Your task to perform on an android device: Search for "usb-b" on newegg, select the first entry, add it to the cart, then select checkout. Image 0: 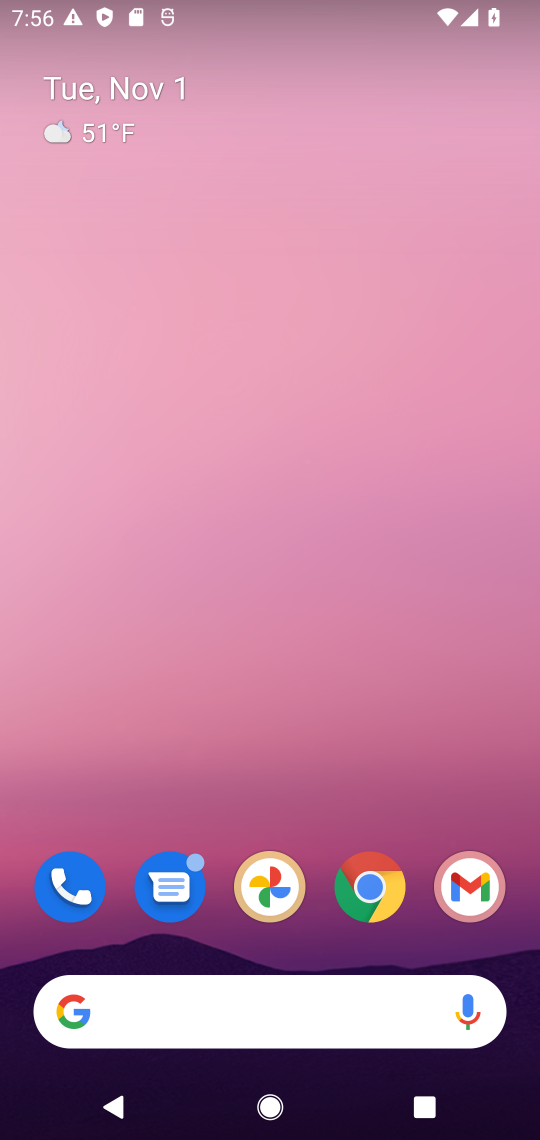
Step 0: drag from (188, 922) to (248, 333)
Your task to perform on an android device: Search for "usb-b" on newegg, select the first entry, add it to the cart, then select checkout. Image 1: 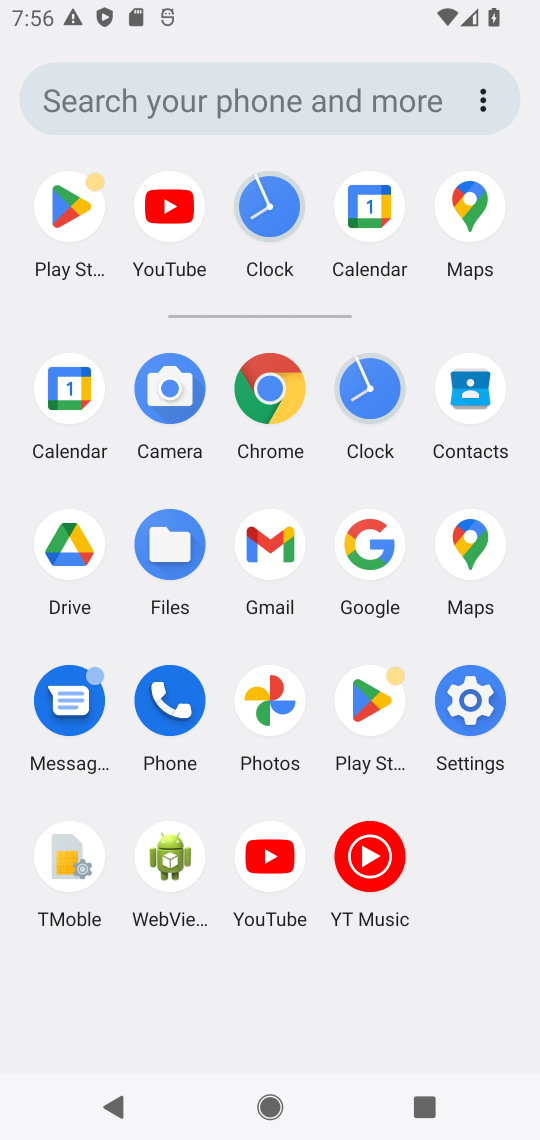
Step 1: click (371, 541)
Your task to perform on an android device: Search for "usb-b" on newegg, select the first entry, add it to the cart, then select checkout. Image 2: 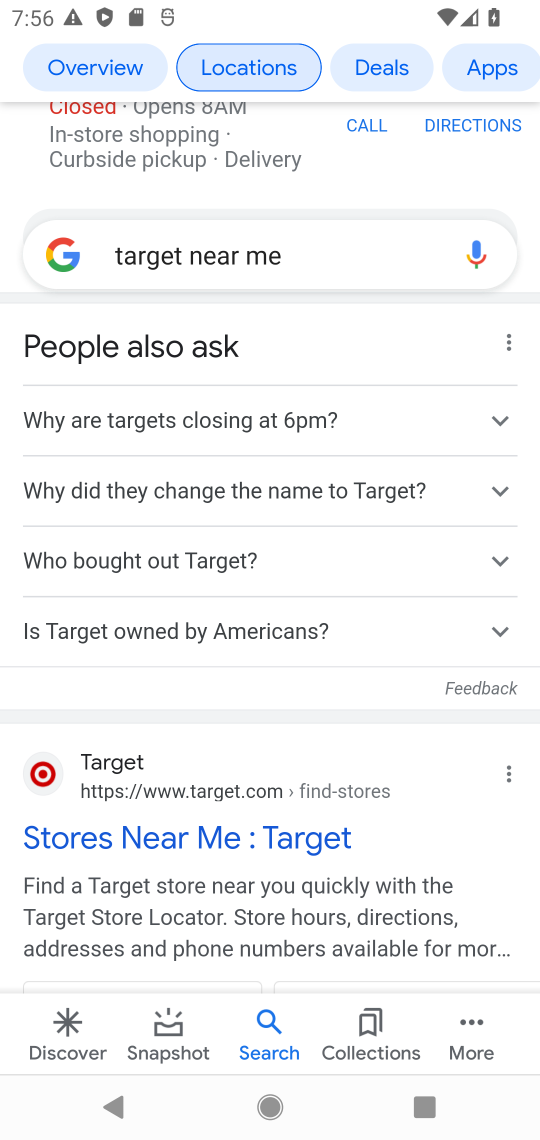
Step 2: click (291, 240)
Your task to perform on an android device: Search for "usb-b" on newegg, select the first entry, add it to the cart, then select checkout. Image 3: 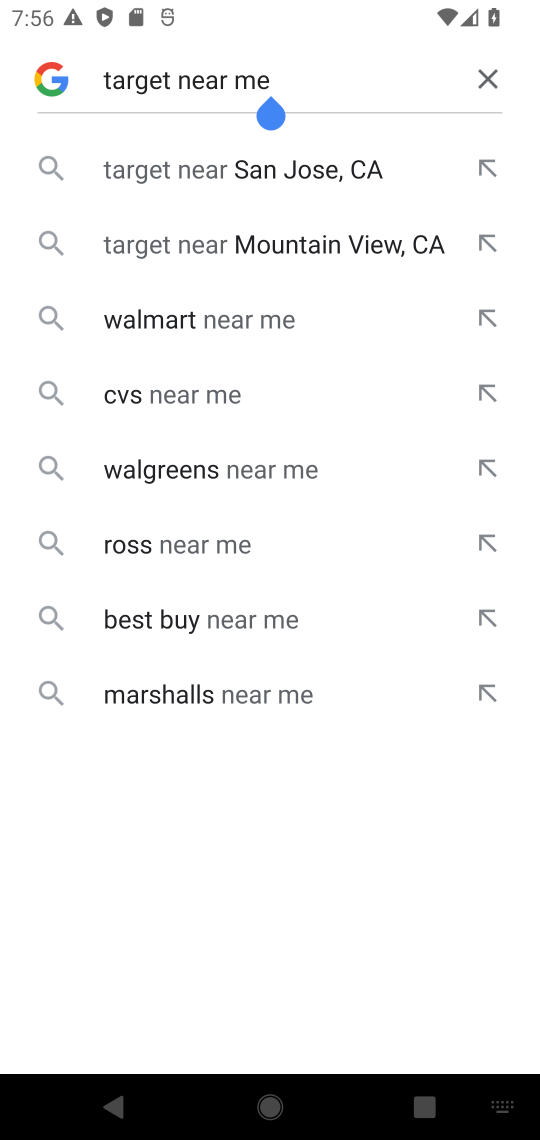
Step 3: click (477, 79)
Your task to perform on an android device: Search for "usb-b" on newegg, select the first entry, add it to the cart, then select checkout. Image 4: 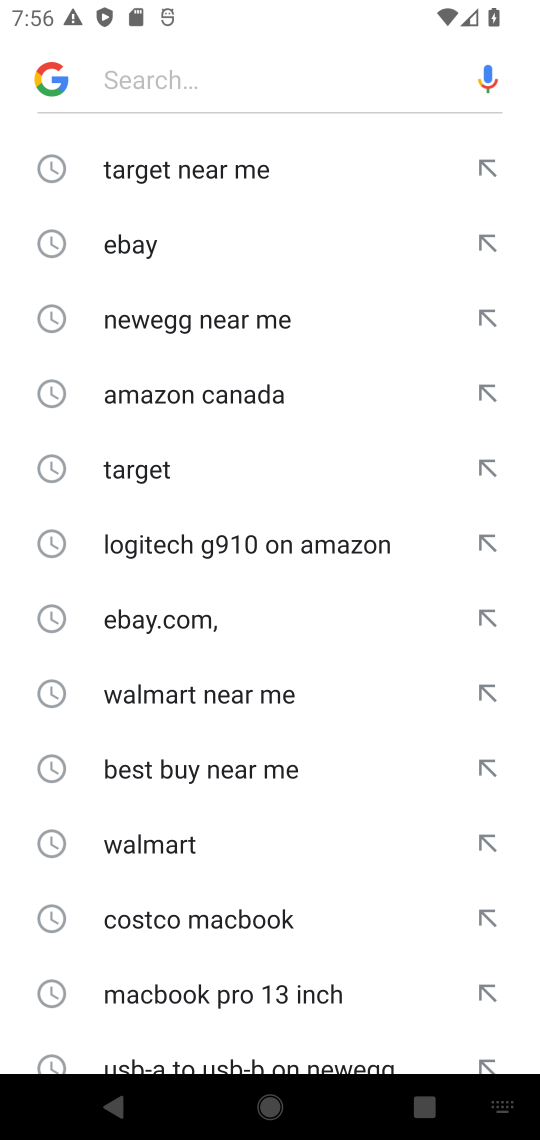
Step 4: click (298, 72)
Your task to perform on an android device: Search for "usb-b" on newegg, select the first entry, add it to the cart, then select checkout. Image 5: 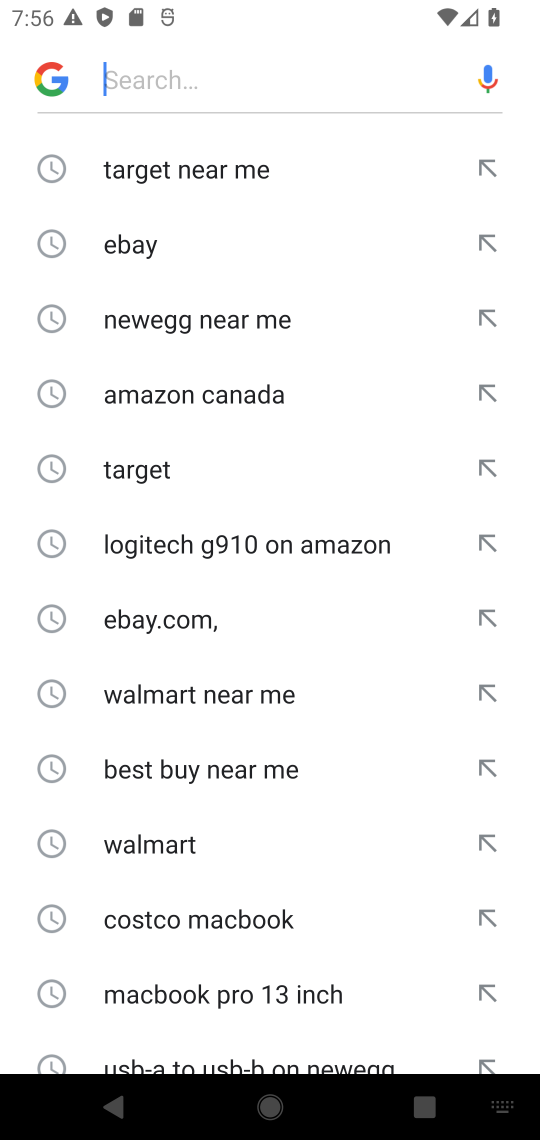
Step 5: type "newegg "
Your task to perform on an android device: Search for "usb-b" on newegg, select the first entry, add it to the cart, then select checkout. Image 6: 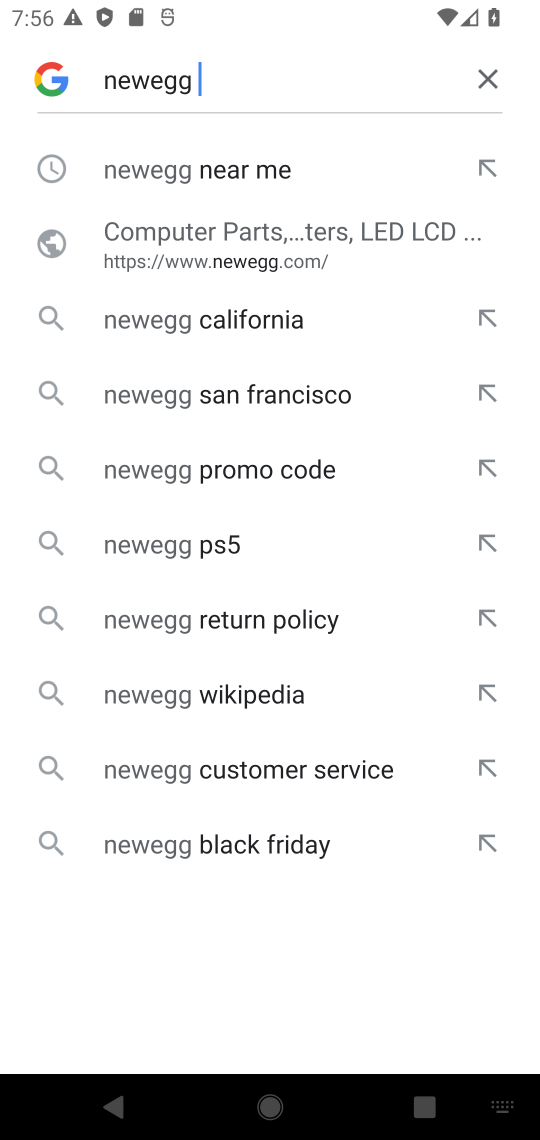
Step 6: click (194, 176)
Your task to perform on an android device: Search for "usb-b" on newegg, select the first entry, add it to the cart, then select checkout. Image 7: 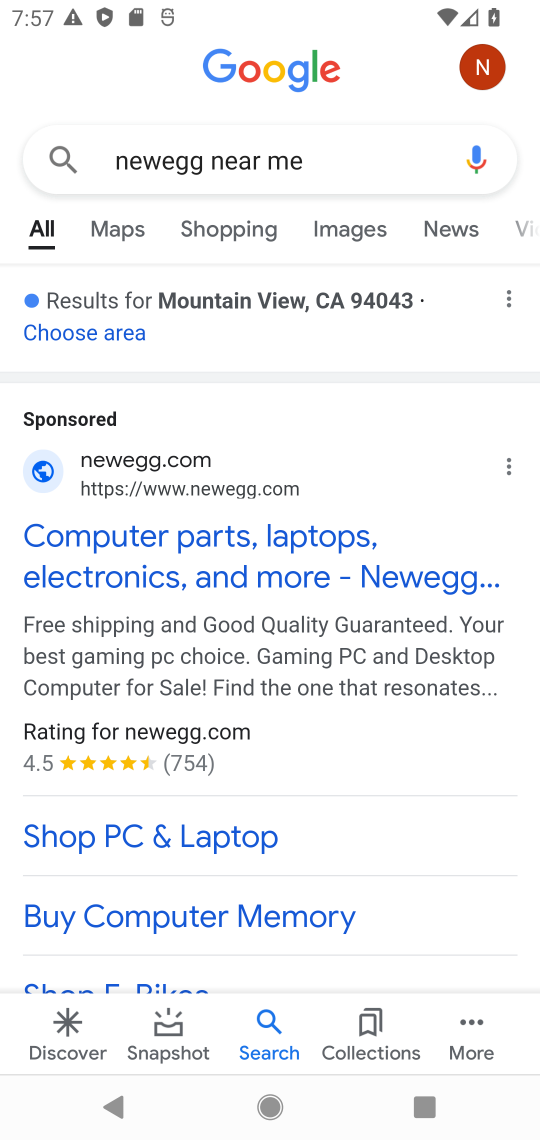
Step 7: drag from (181, 928) to (310, 413)
Your task to perform on an android device: Search for "usb-b" on newegg, select the first entry, add it to the cart, then select checkout. Image 8: 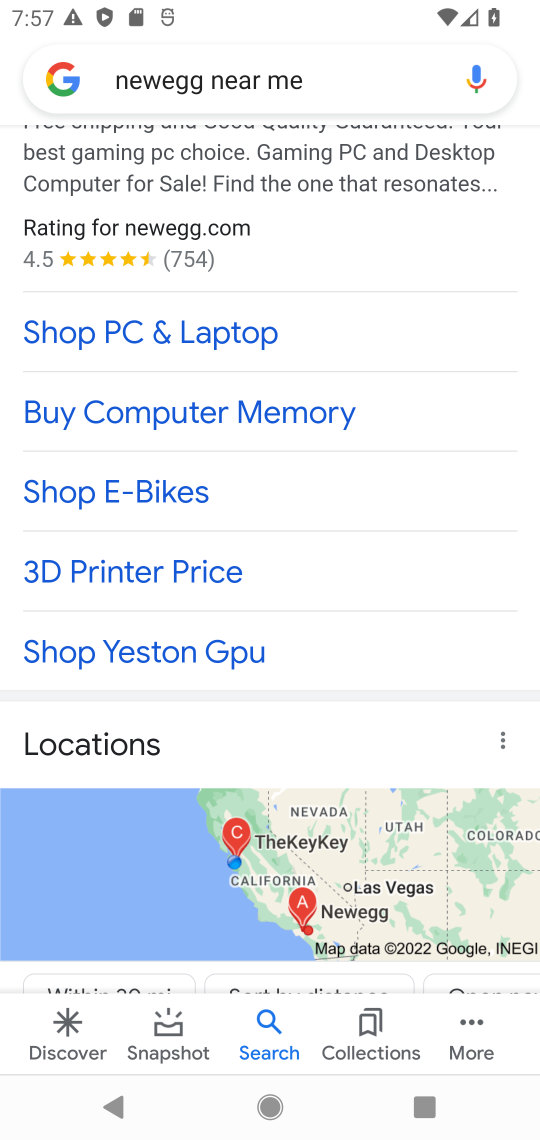
Step 8: drag from (201, 925) to (377, 230)
Your task to perform on an android device: Search for "usb-b" on newegg, select the first entry, add it to the cart, then select checkout. Image 9: 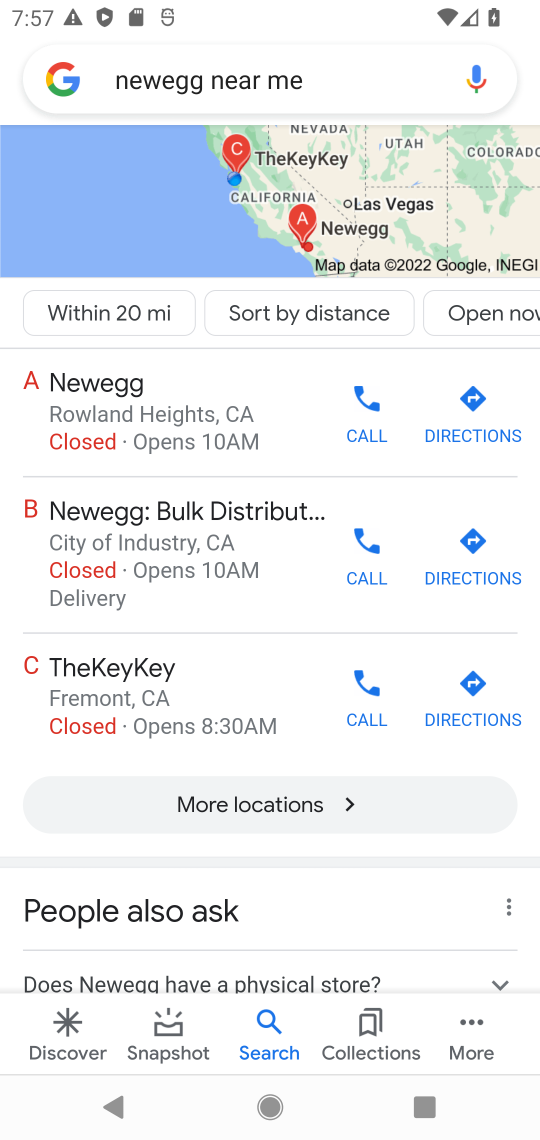
Step 9: drag from (236, 722) to (299, 340)
Your task to perform on an android device: Search for "usb-b" on newegg, select the first entry, add it to the cart, then select checkout. Image 10: 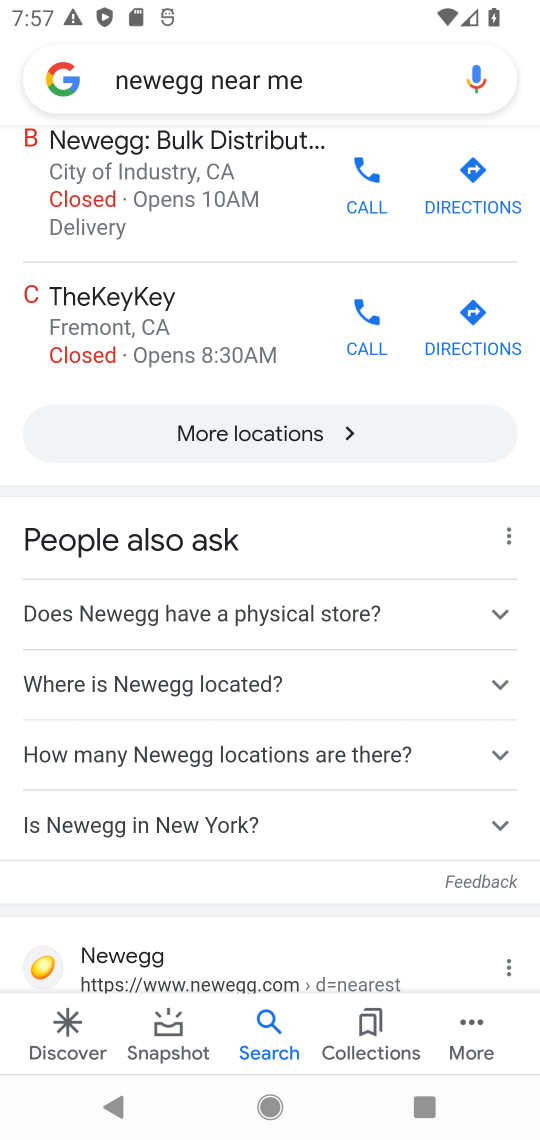
Step 10: drag from (54, 903) to (234, 296)
Your task to perform on an android device: Search for "usb-b" on newegg, select the first entry, add it to the cart, then select checkout. Image 11: 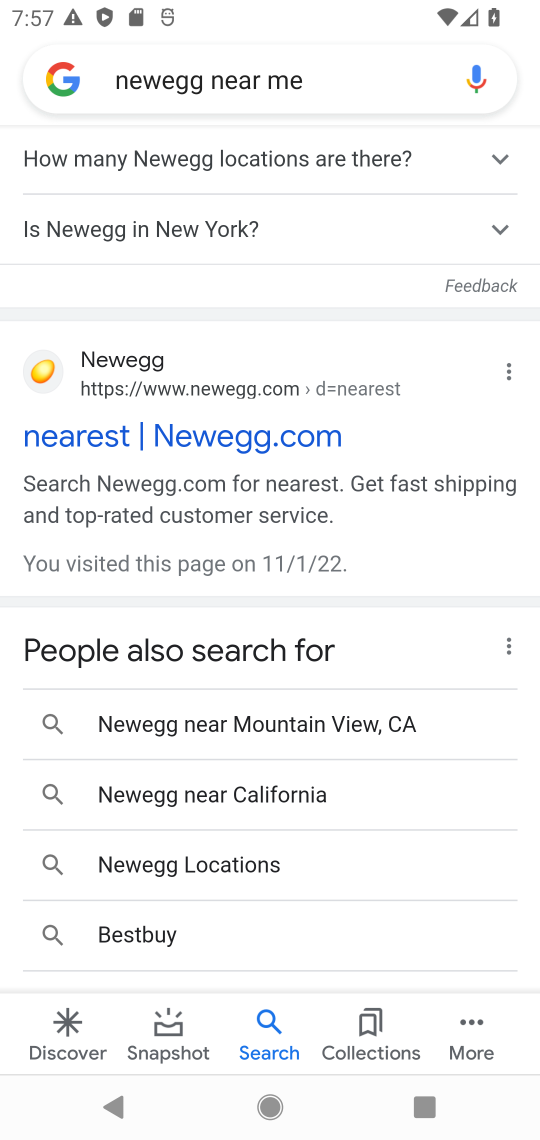
Step 11: click (37, 375)
Your task to perform on an android device: Search for "usb-b" on newegg, select the first entry, add it to the cart, then select checkout. Image 12: 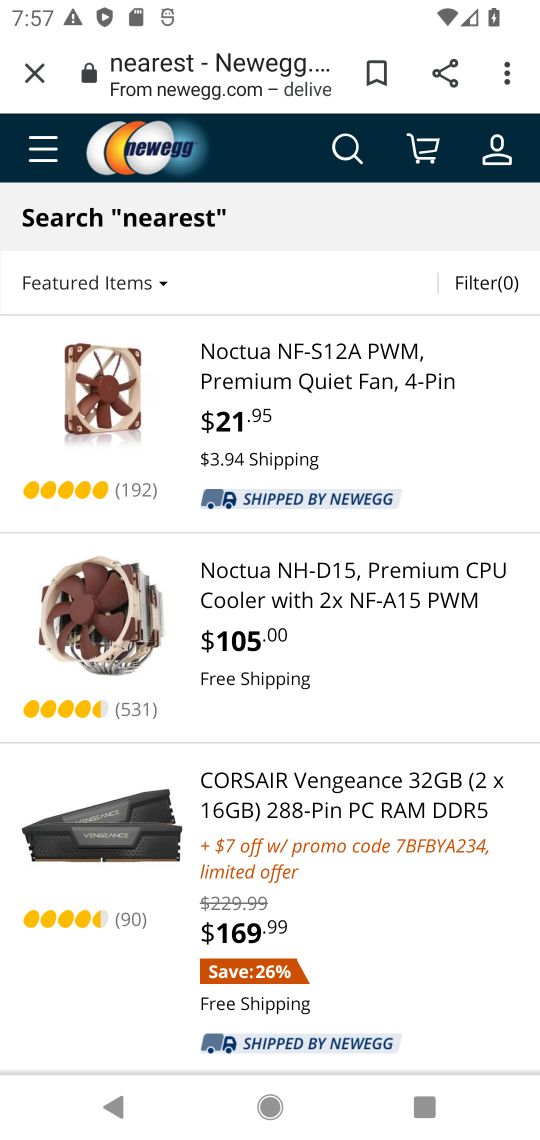
Step 12: click (343, 136)
Your task to perform on an android device: Search for "usb-b" on newegg, select the first entry, add it to the cart, then select checkout. Image 13: 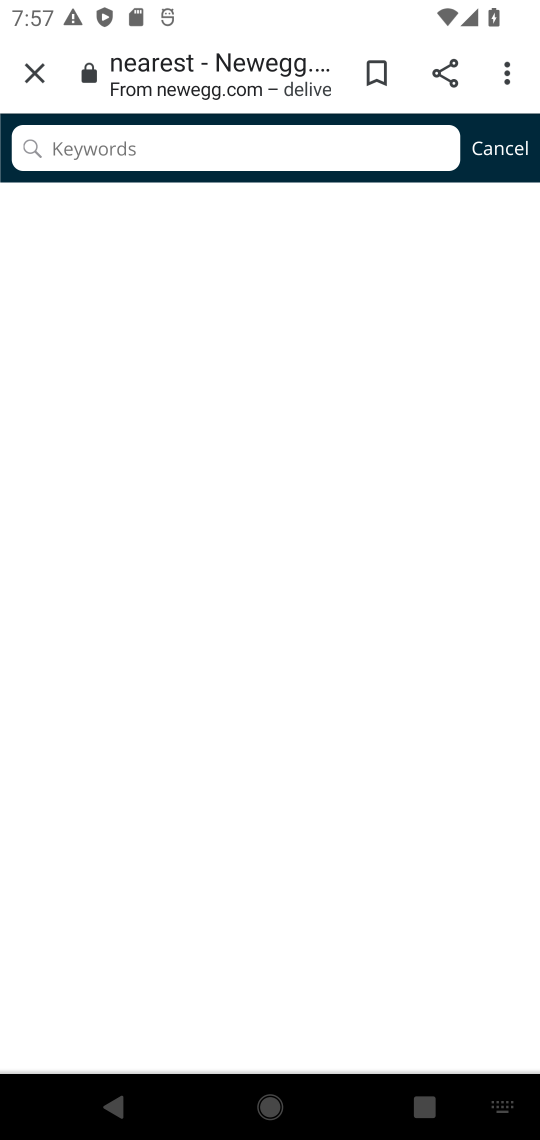
Step 13: click (119, 130)
Your task to perform on an android device: Search for "usb-b" on newegg, select the first entry, add it to the cart, then select checkout. Image 14: 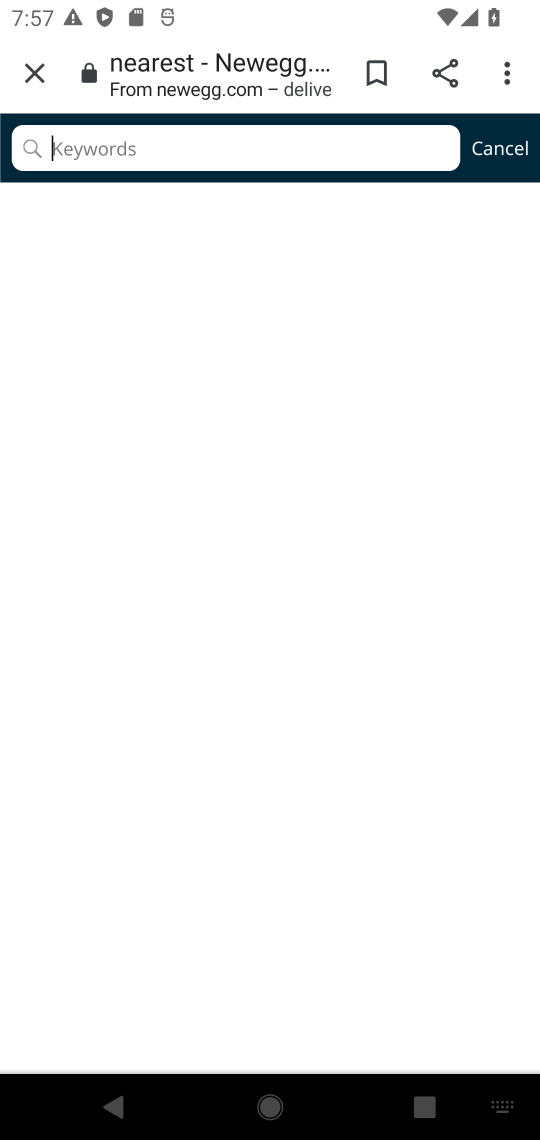
Step 14: type "usb-b "
Your task to perform on an android device: Search for "usb-b" on newegg, select the first entry, add it to the cart, then select checkout. Image 15: 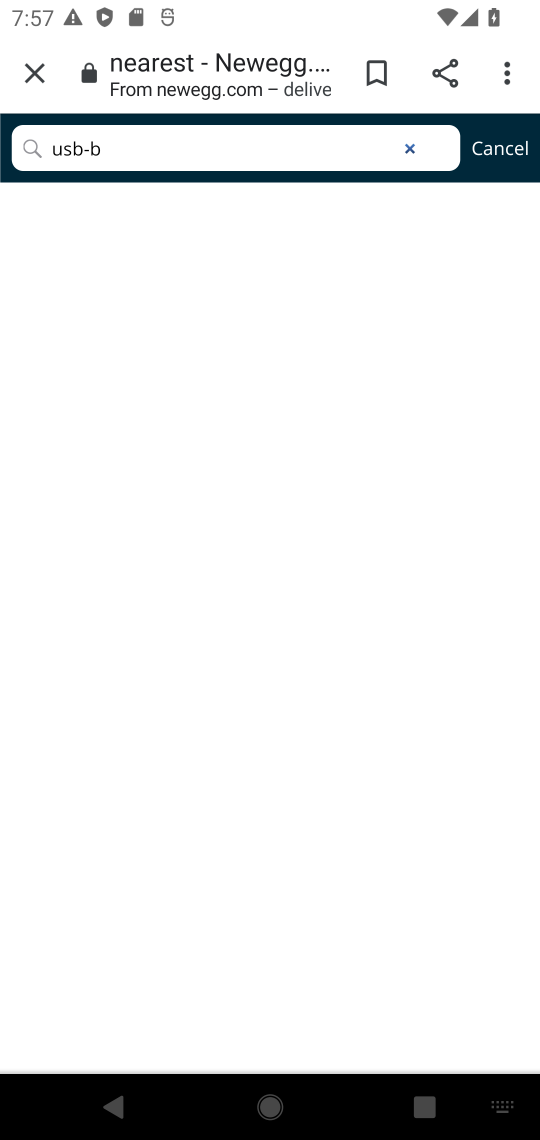
Step 15: task complete